Your task to perform on an android device: toggle sleep mode Image 0: 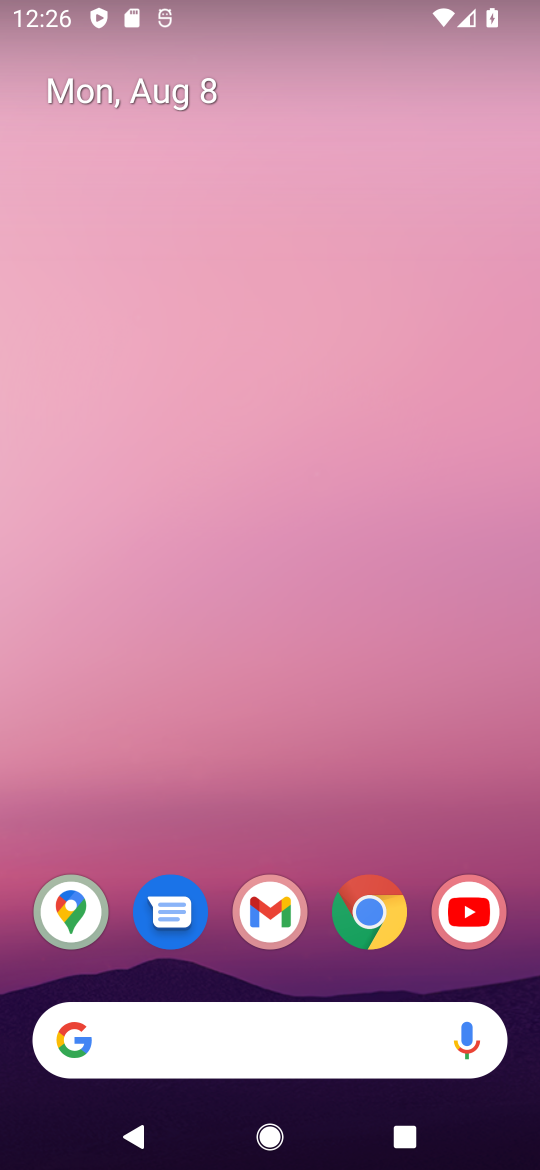
Step 0: drag from (286, 961) to (455, 0)
Your task to perform on an android device: toggle sleep mode Image 1: 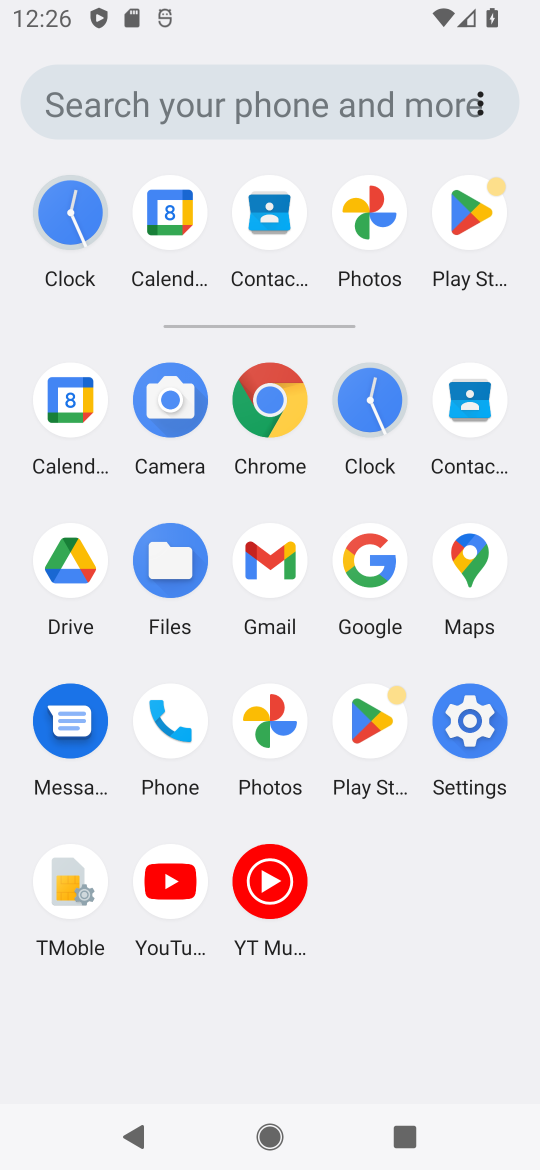
Step 1: click (471, 739)
Your task to perform on an android device: toggle sleep mode Image 2: 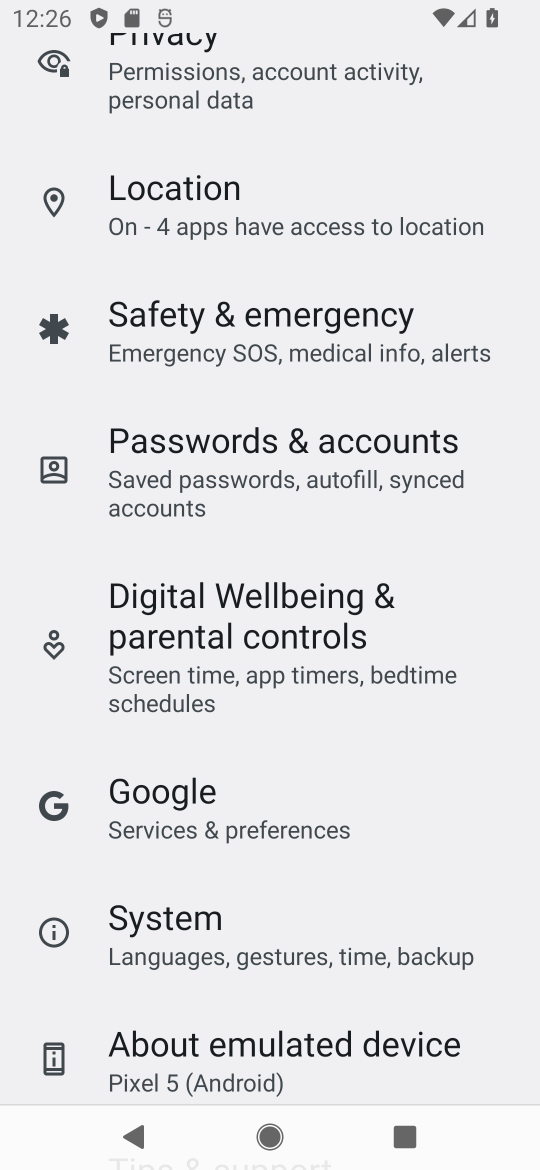
Step 2: drag from (288, 228) to (154, 1118)
Your task to perform on an android device: toggle sleep mode Image 3: 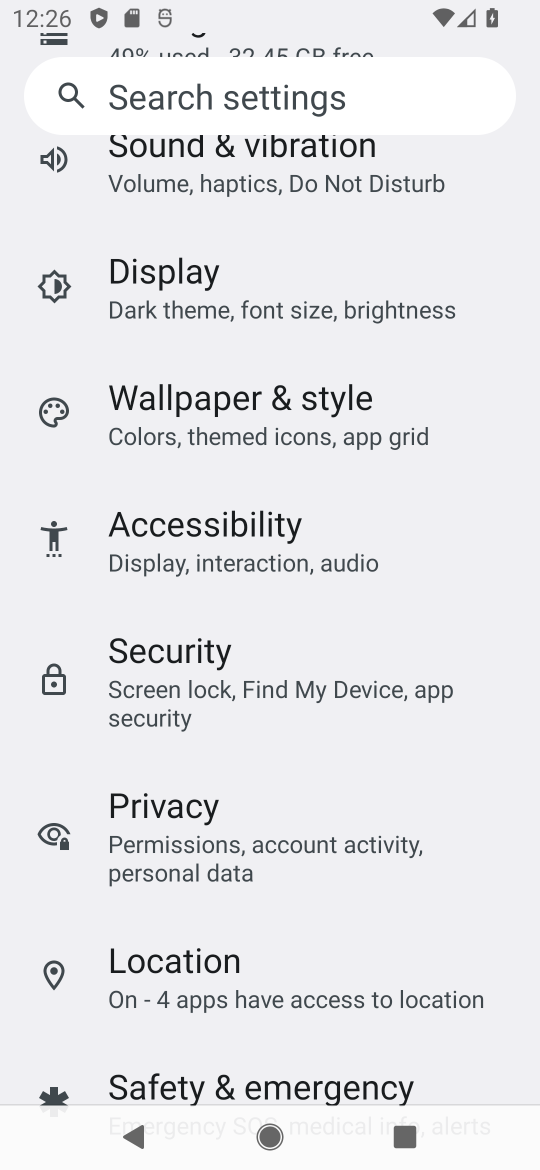
Step 3: click (186, 98)
Your task to perform on an android device: toggle sleep mode Image 4: 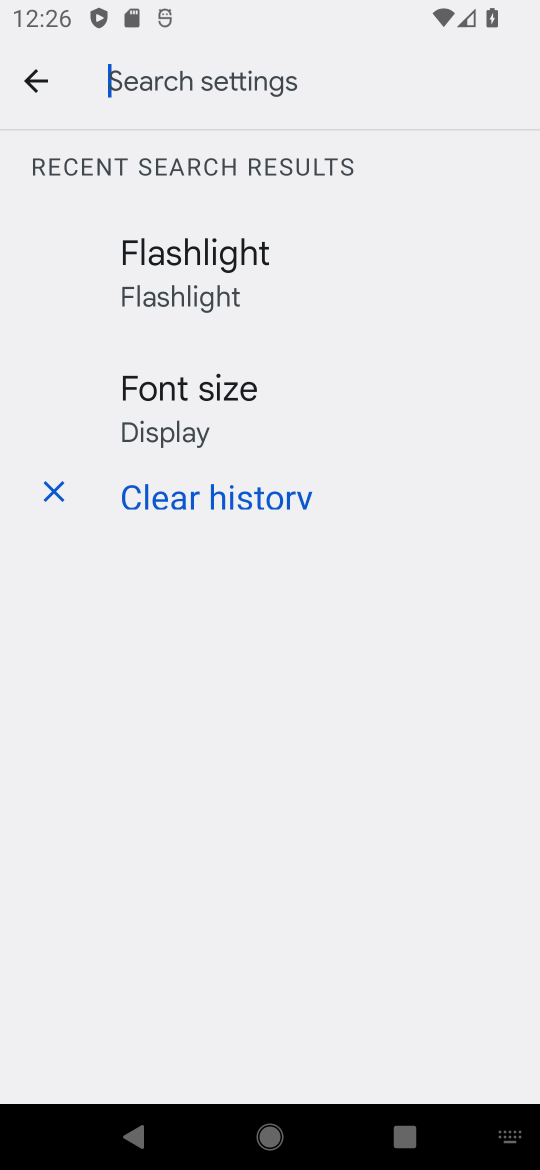
Step 4: type "sleep mode"
Your task to perform on an android device: toggle sleep mode Image 5: 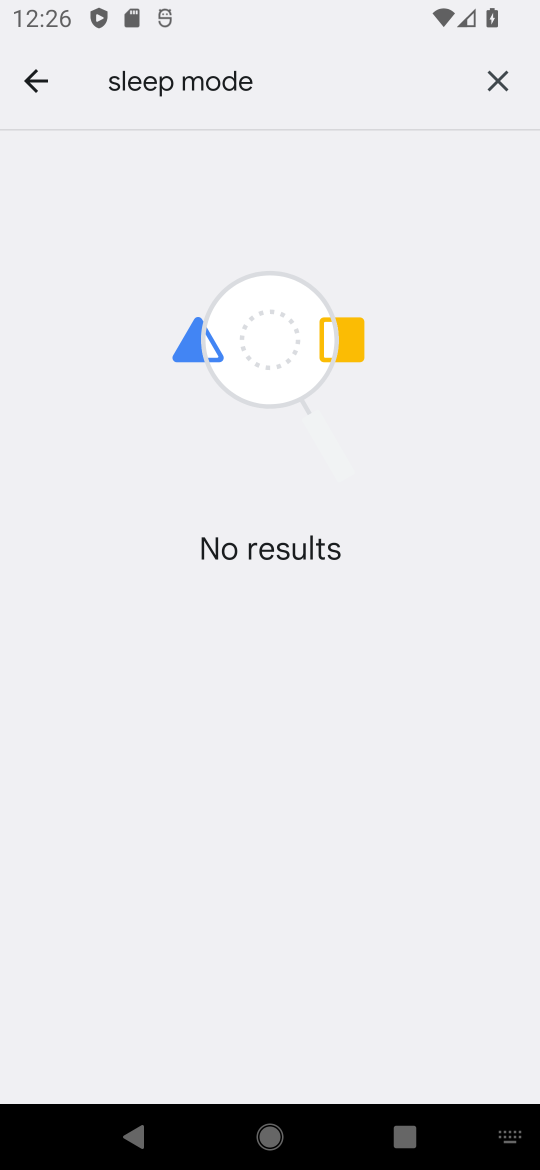
Step 5: task complete